Your task to perform on an android device: turn on showing notifications on the lock screen Image 0: 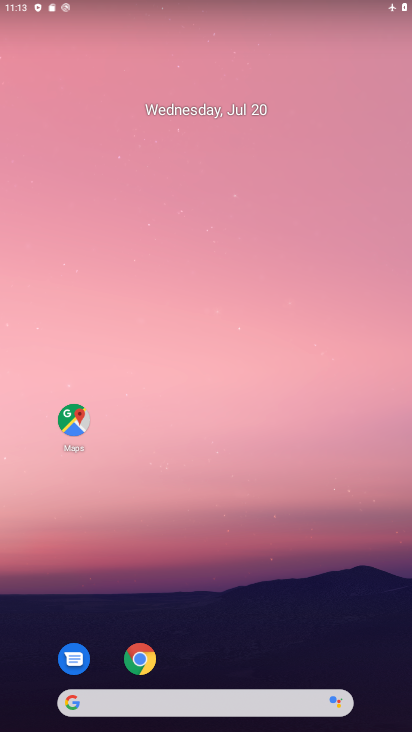
Step 0: drag from (246, 641) to (282, 72)
Your task to perform on an android device: turn on showing notifications on the lock screen Image 1: 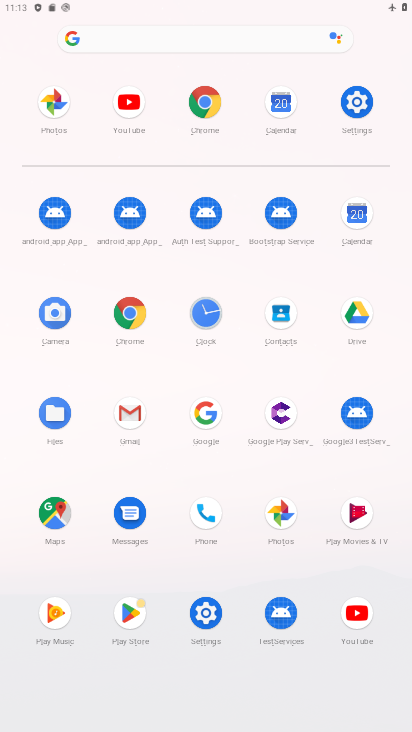
Step 1: click (208, 620)
Your task to perform on an android device: turn on showing notifications on the lock screen Image 2: 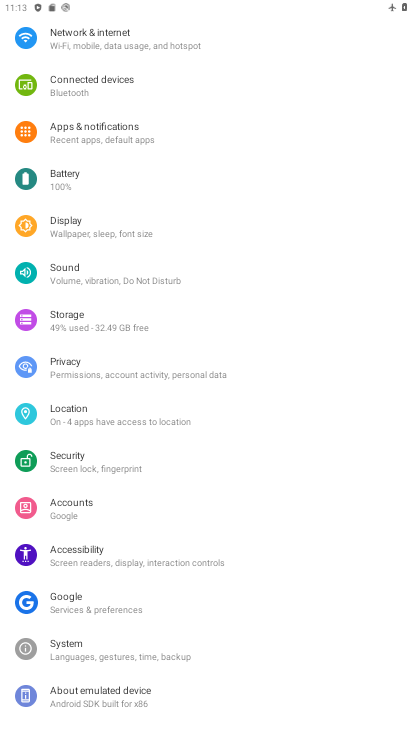
Step 2: click (124, 144)
Your task to perform on an android device: turn on showing notifications on the lock screen Image 3: 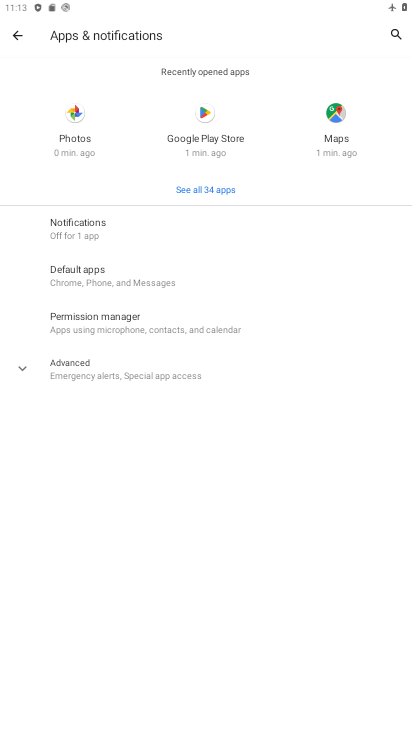
Step 3: click (113, 224)
Your task to perform on an android device: turn on showing notifications on the lock screen Image 4: 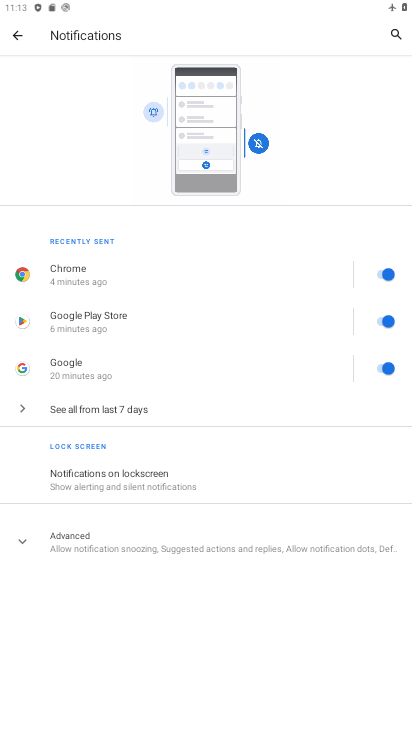
Step 4: click (189, 479)
Your task to perform on an android device: turn on showing notifications on the lock screen Image 5: 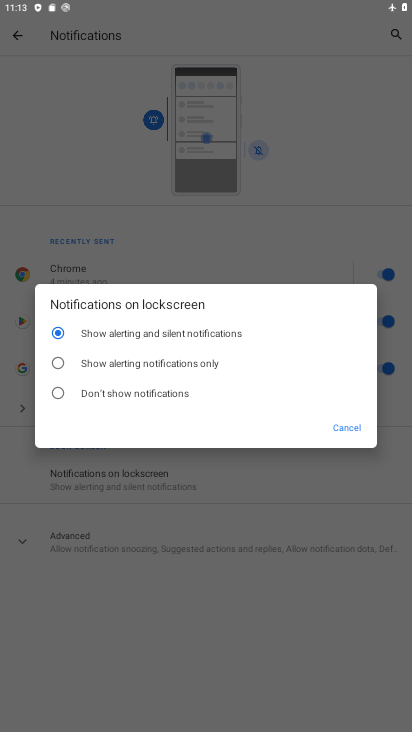
Step 5: task complete